Your task to perform on an android device: What's the weather going to be this weekend? Image 0: 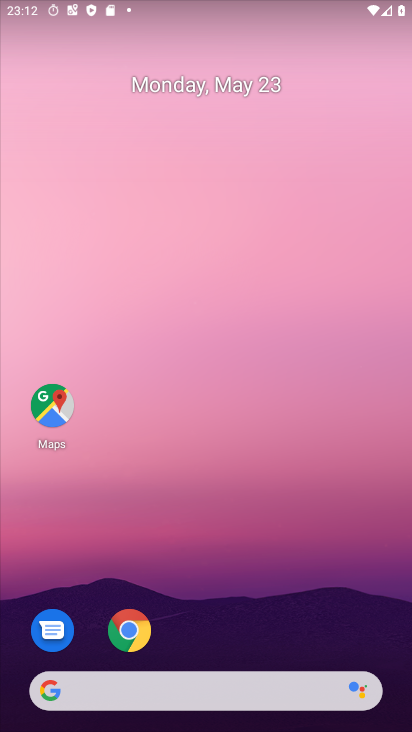
Step 0: click (93, 697)
Your task to perform on an android device: What's the weather going to be this weekend? Image 1: 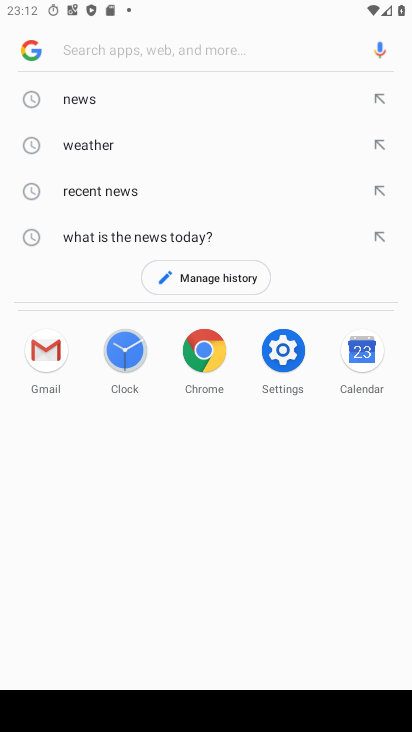
Step 1: click (97, 142)
Your task to perform on an android device: What's the weather going to be this weekend? Image 2: 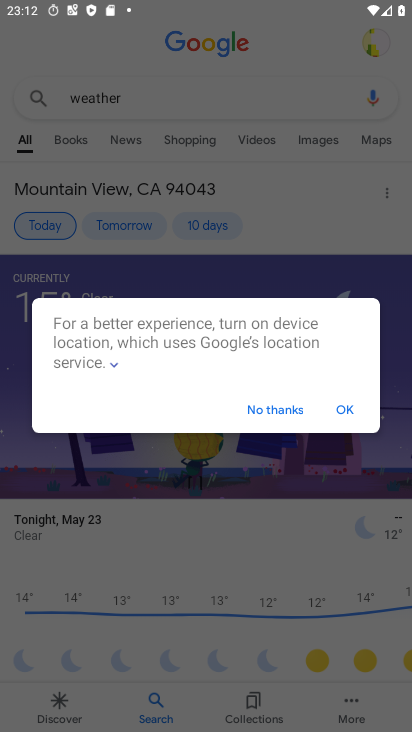
Step 2: click (203, 235)
Your task to perform on an android device: What's the weather going to be this weekend? Image 3: 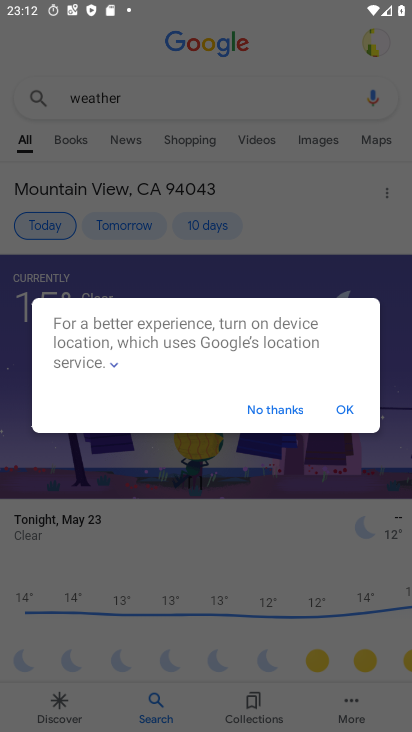
Step 3: click (282, 416)
Your task to perform on an android device: What's the weather going to be this weekend? Image 4: 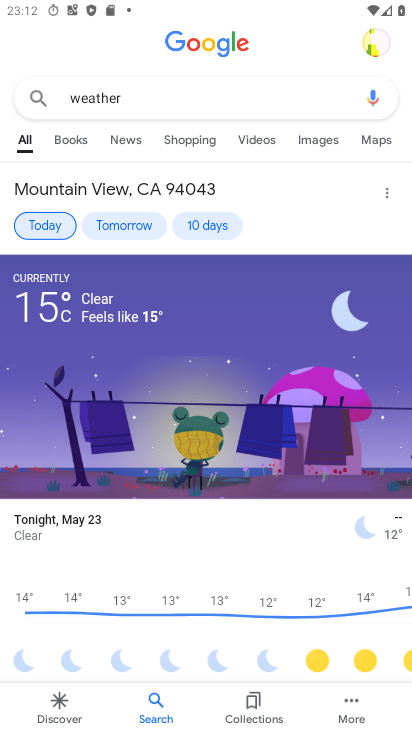
Step 4: click (209, 229)
Your task to perform on an android device: What's the weather going to be this weekend? Image 5: 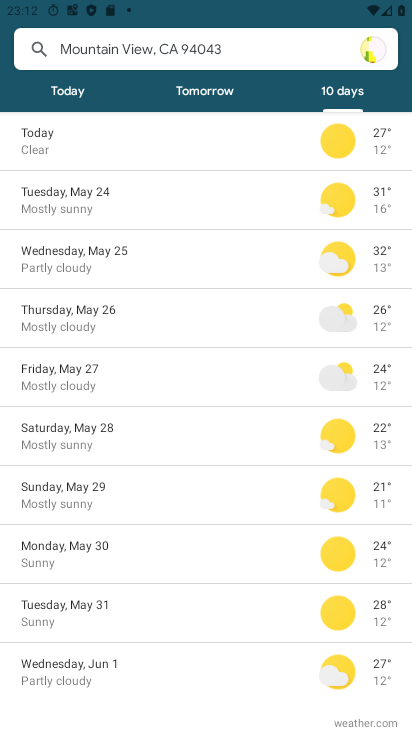
Step 5: task complete